Your task to perform on an android device: search for starred emails in the gmail app Image 0: 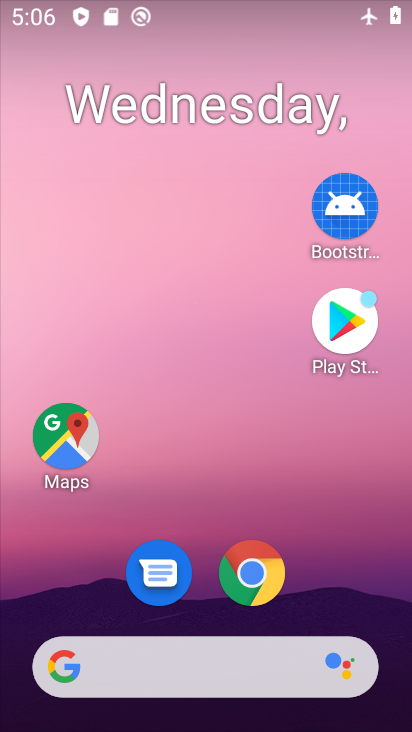
Step 0: drag from (371, 547) to (356, 18)
Your task to perform on an android device: search for starred emails in the gmail app Image 1: 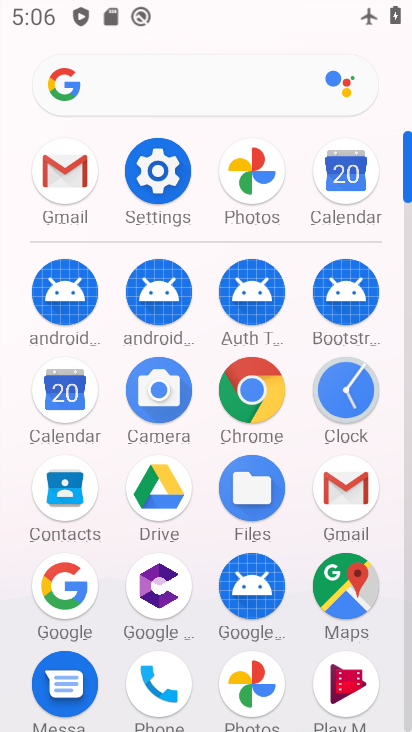
Step 1: click (48, 167)
Your task to perform on an android device: search for starred emails in the gmail app Image 2: 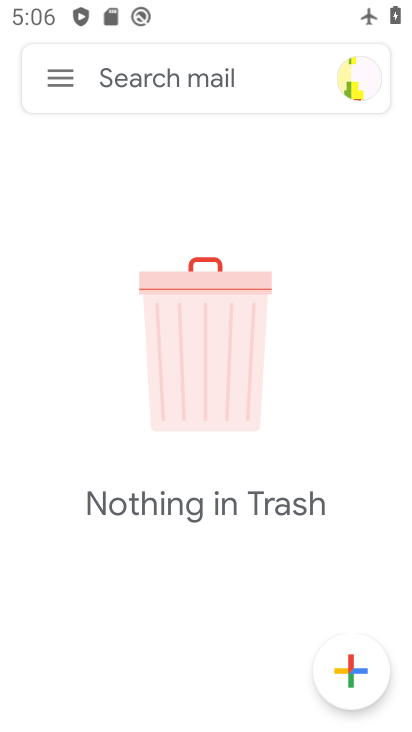
Step 2: click (252, 9)
Your task to perform on an android device: search for starred emails in the gmail app Image 3: 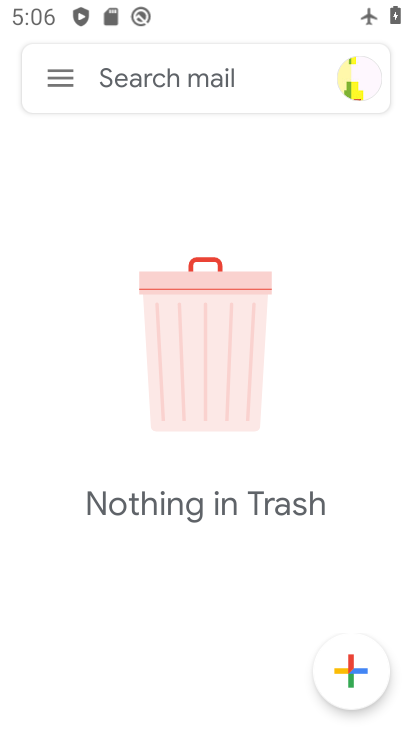
Step 3: click (360, 7)
Your task to perform on an android device: search for starred emails in the gmail app Image 4: 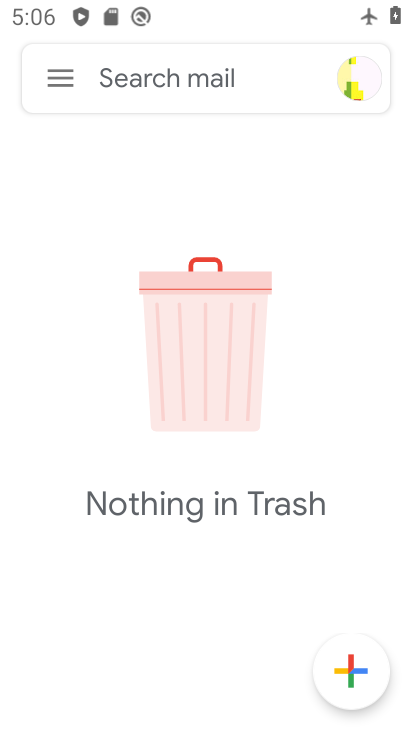
Step 4: drag from (373, 16) to (374, 594)
Your task to perform on an android device: search for starred emails in the gmail app Image 5: 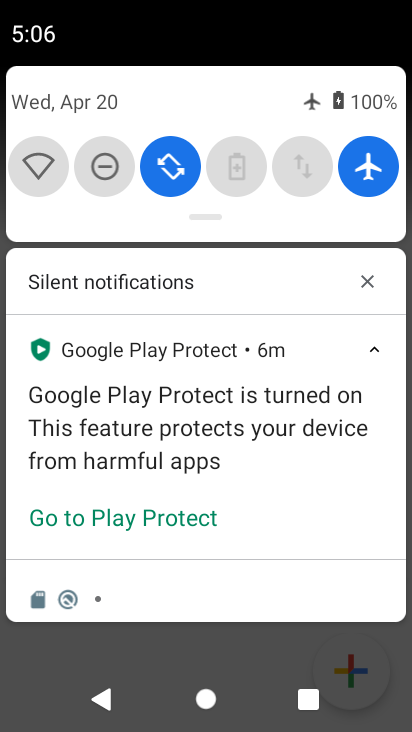
Step 5: click (359, 171)
Your task to perform on an android device: search for starred emails in the gmail app Image 6: 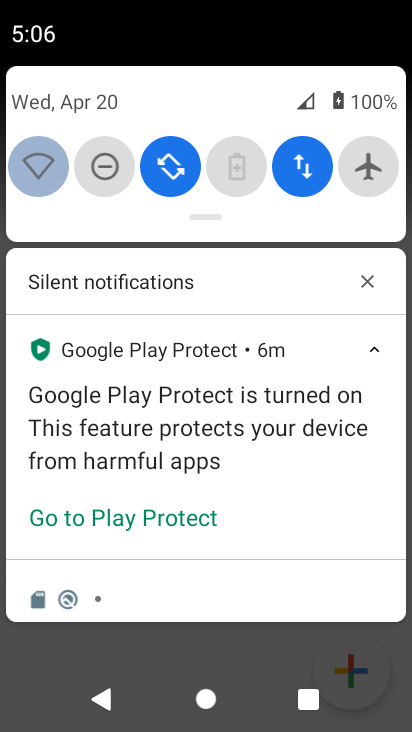
Step 6: drag from (319, 638) to (332, 145)
Your task to perform on an android device: search for starred emails in the gmail app Image 7: 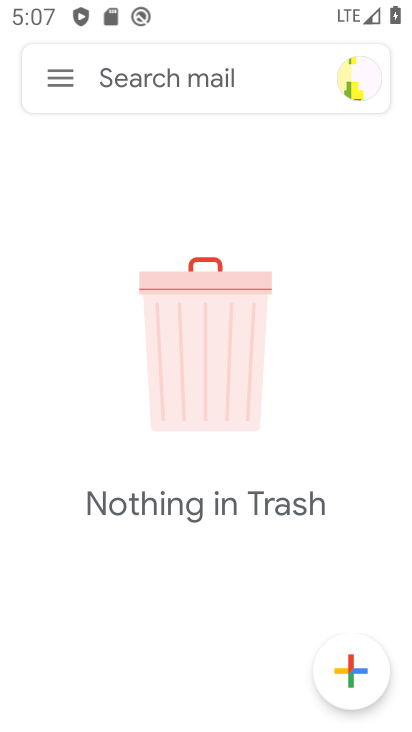
Step 7: click (53, 77)
Your task to perform on an android device: search for starred emails in the gmail app Image 8: 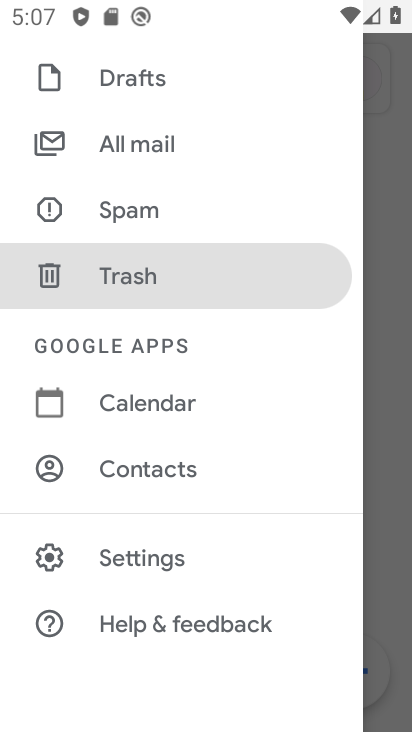
Step 8: drag from (149, 279) to (142, 722)
Your task to perform on an android device: search for starred emails in the gmail app Image 9: 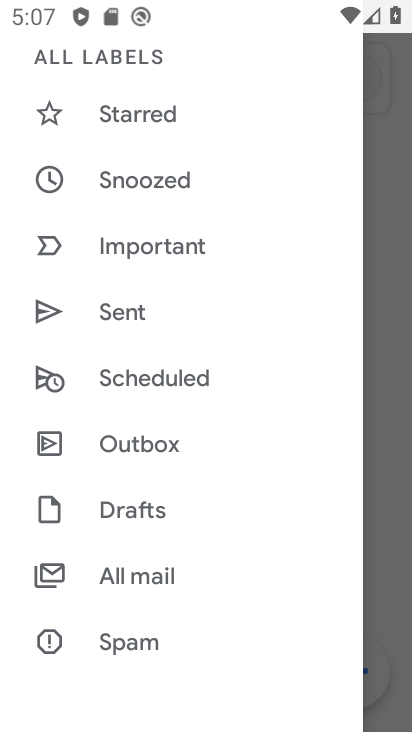
Step 9: click (175, 108)
Your task to perform on an android device: search for starred emails in the gmail app Image 10: 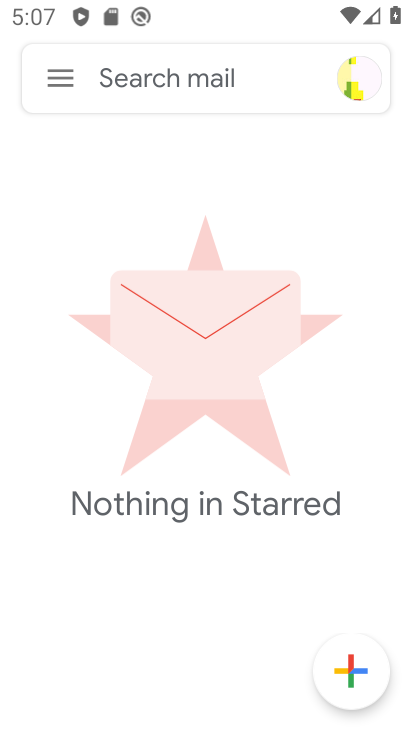
Step 10: task complete